Your task to perform on an android device: Go to Amazon Image 0: 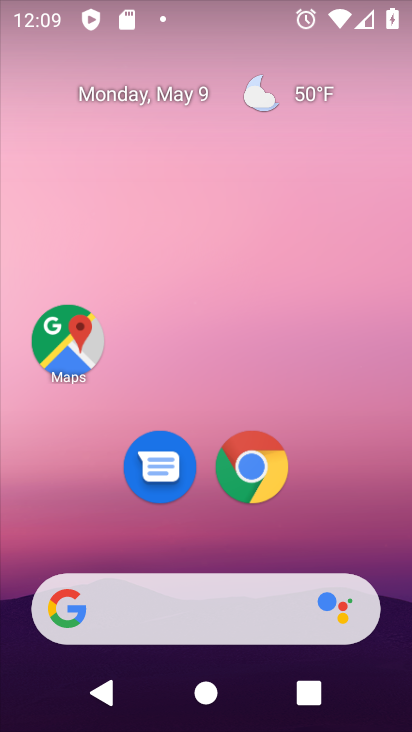
Step 0: click (256, 468)
Your task to perform on an android device: Go to Amazon Image 1: 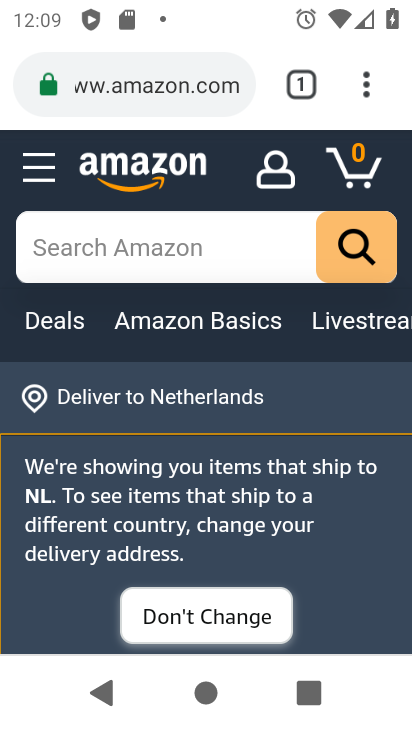
Step 1: task complete